Your task to perform on an android device: toggle pop-ups in chrome Image 0: 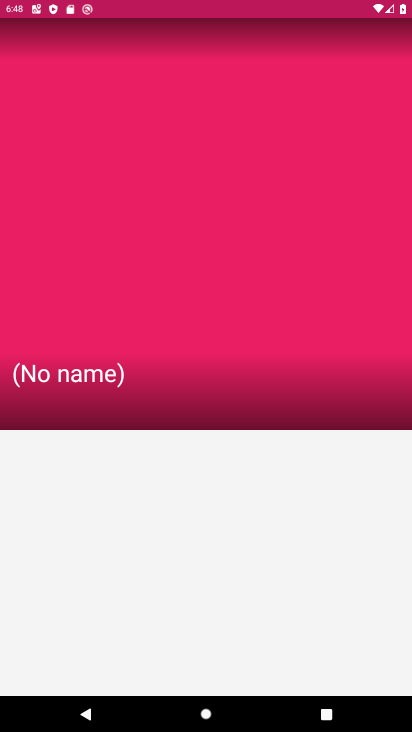
Step 0: drag from (291, 638) to (289, 293)
Your task to perform on an android device: toggle pop-ups in chrome Image 1: 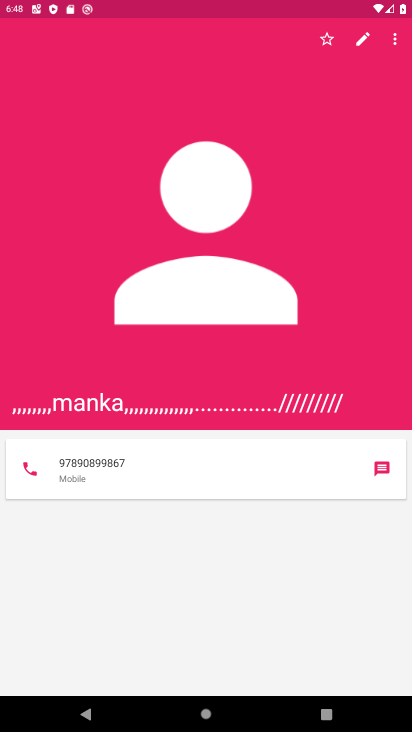
Step 1: press home button
Your task to perform on an android device: toggle pop-ups in chrome Image 2: 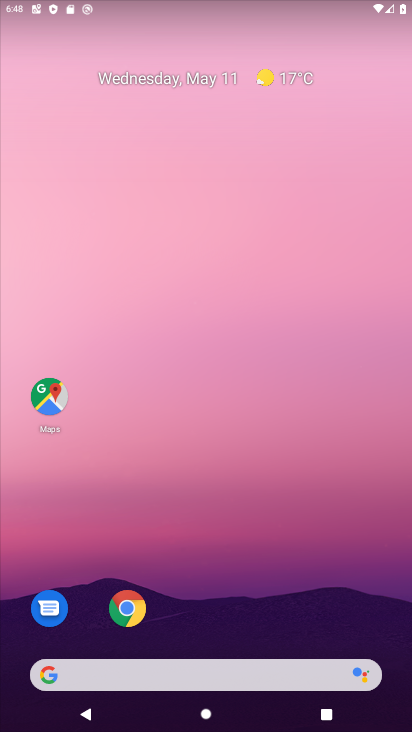
Step 2: click (139, 597)
Your task to perform on an android device: toggle pop-ups in chrome Image 3: 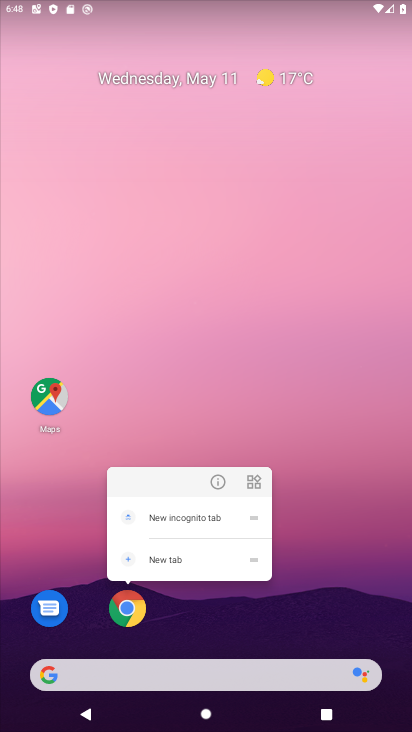
Step 3: click (139, 597)
Your task to perform on an android device: toggle pop-ups in chrome Image 4: 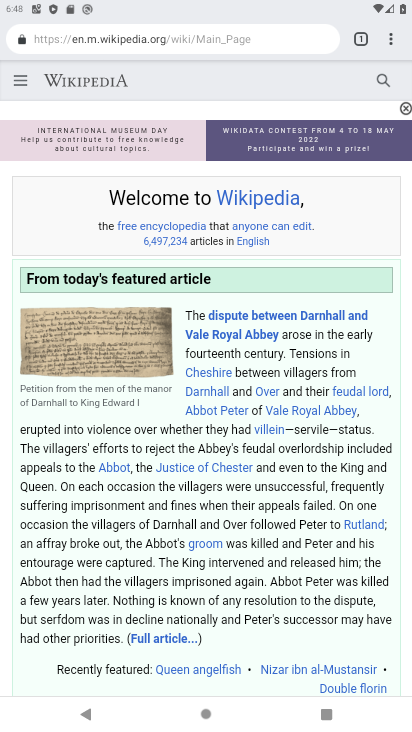
Step 4: click (385, 47)
Your task to perform on an android device: toggle pop-ups in chrome Image 5: 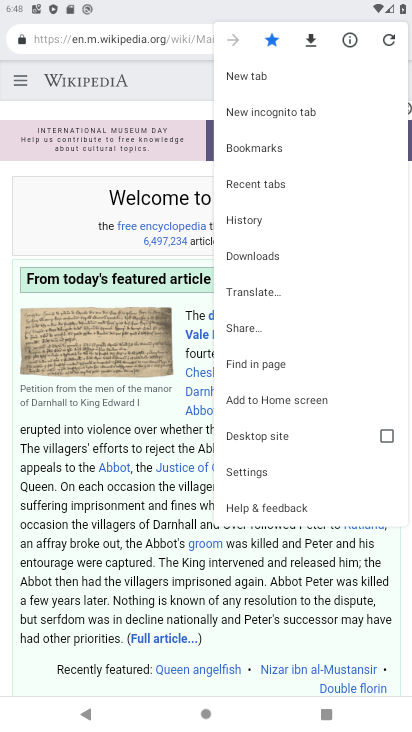
Step 5: click (251, 475)
Your task to perform on an android device: toggle pop-ups in chrome Image 6: 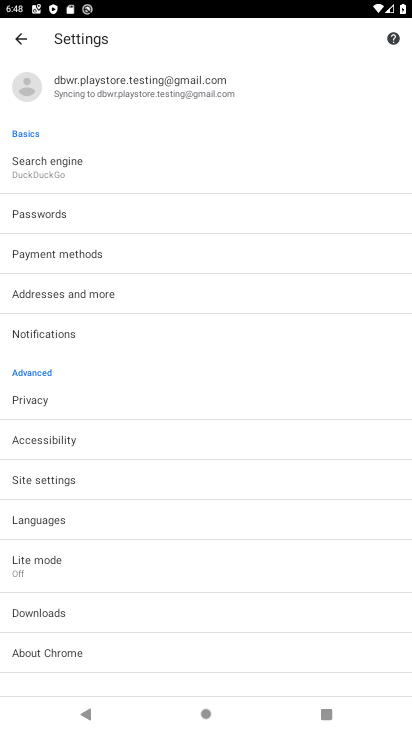
Step 6: click (176, 476)
Your task to perform on an android device: toggle pop-ups in chrome Image 7: 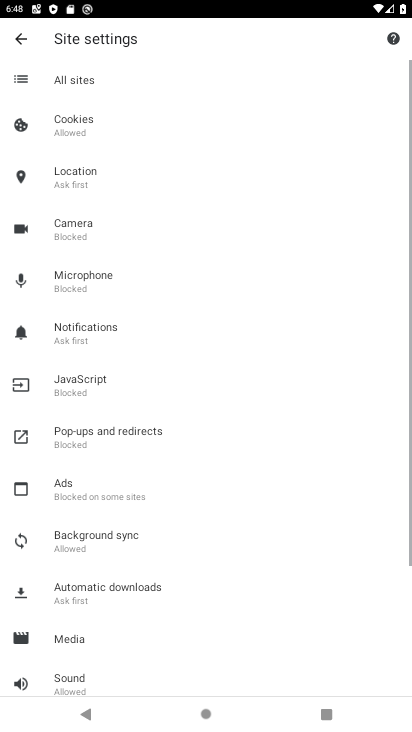
Step 7: click (212, 444)
Your task to perform on an android device: toggle pop-ups in chrome Image 8: 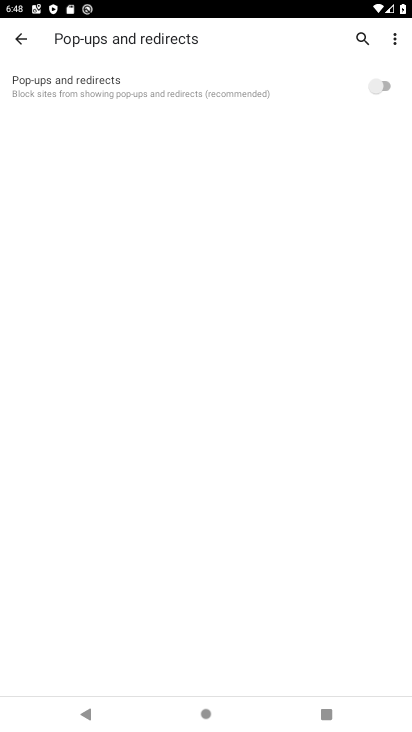
Step 8: click (382, 86)
Your task to perform on an android device: toggle pop-ups in chrome Image 9: 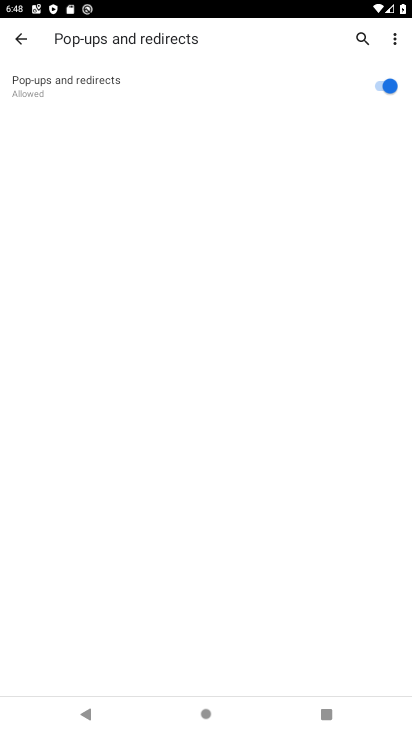
Step 9: task complete